Your task to perform on an android device: open app "Pinterest" Image 0: 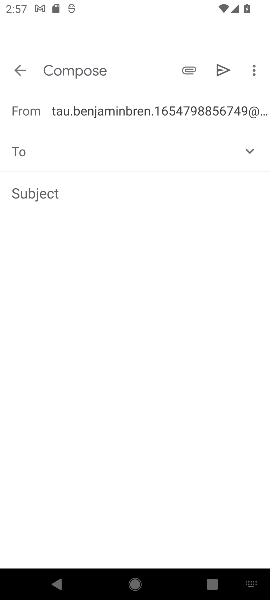
Step 0: press home button
Your task to perform on an android device: open app "Pinterest" Image 1: 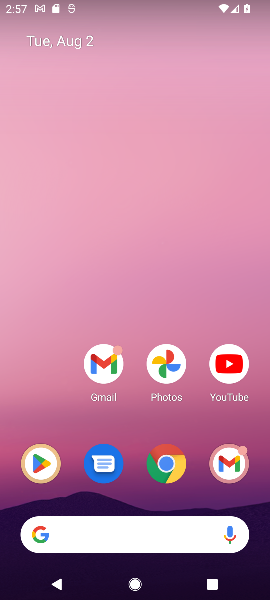
Step 1: click (44, 465)
Your task to perform on an android device: open app "Pinterest" Image 2: 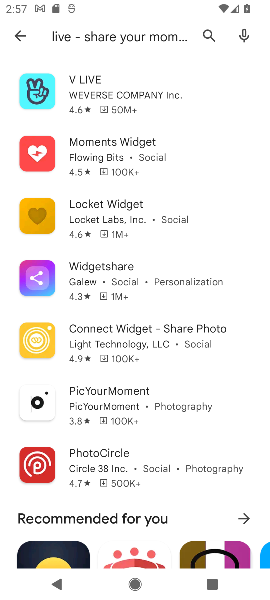
Step 2: click (206, 29)
Your task to perform on an android device: open app "Pinterest" Image 3: 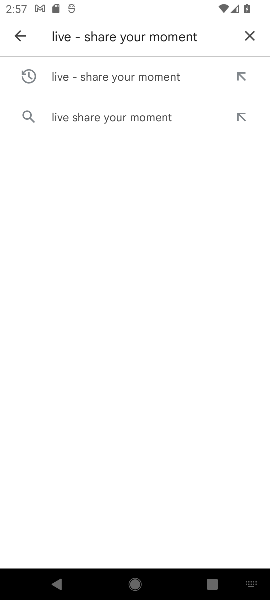
Step 3: click (251, 35)
Your task to perform on an android device: open app "Pinterest" Image 4: 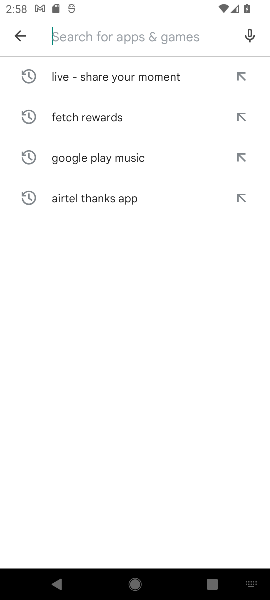
Step 4: type "Pinterest"
Your task to perform on an android device: open app "Pinterest" Image 5: 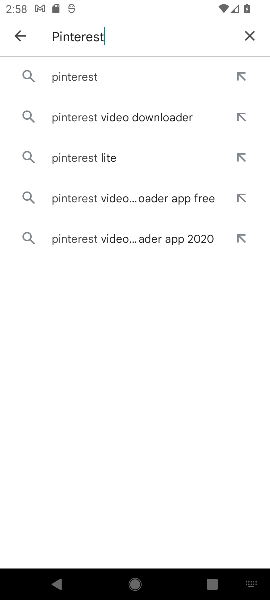
Step 5: click (65, 77)
Your task to perform on an android device: open app "Pinterest" Image 6: 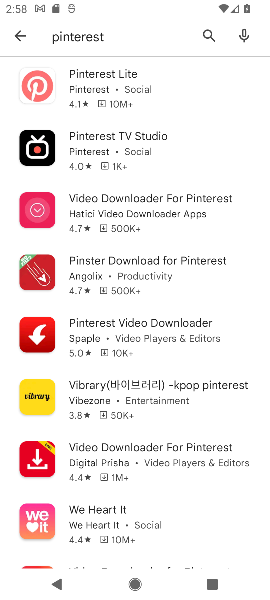
Step 6: click (97, 85)
Your task to perform on an android device: open app "Pinterest" Image 7: 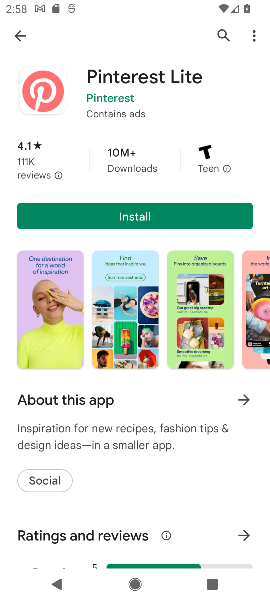
Step 7: task complete